Your task to perform on an android device: install app "Life360: Find Family & Friends" Image 0: 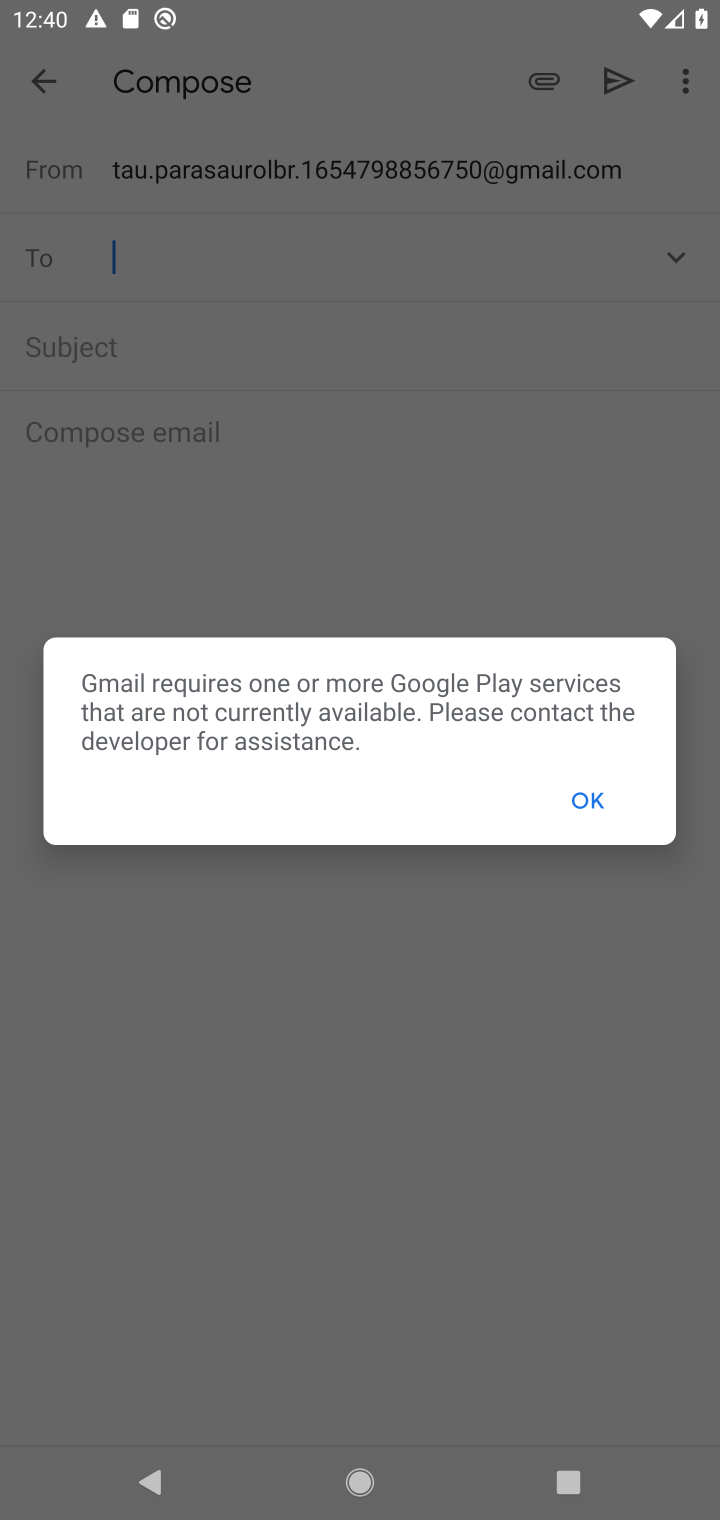
Step 0: task complete